Your task to perform on an android device: Go to CNN.com Image 0: 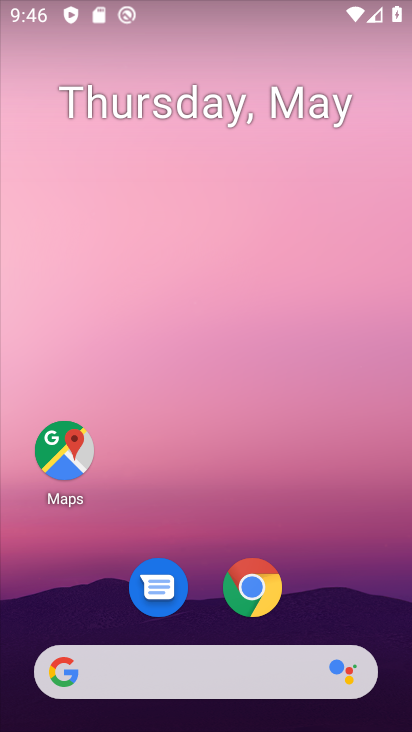
Step 0: click (250, 566)
Your task to perform on an android device: Go to CNN.com Image 1: 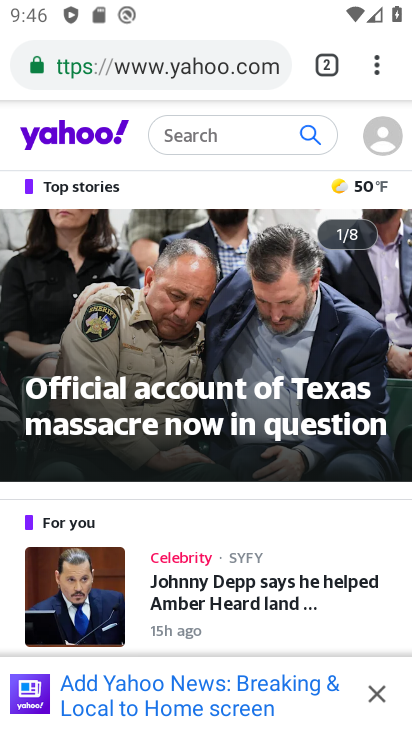
Step 1: click (154, 51)
Your task to perform on an android device: Go to CNN.com Image 2: 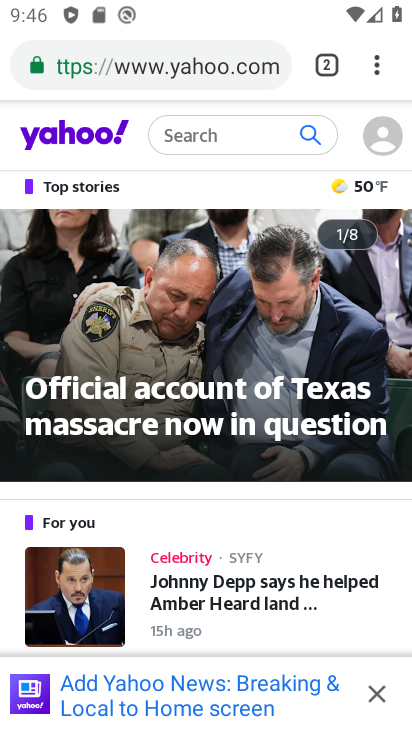
Step 2: click (154, 51)
Your task to perform on an android device: Go to CNN.com Image 3: 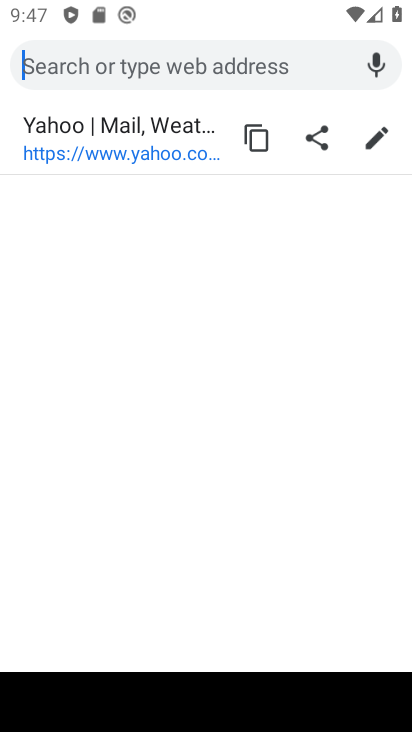
Step 3: type "cnn.com"
Your task to perform on an android device: Go to CNN.com Image 4: 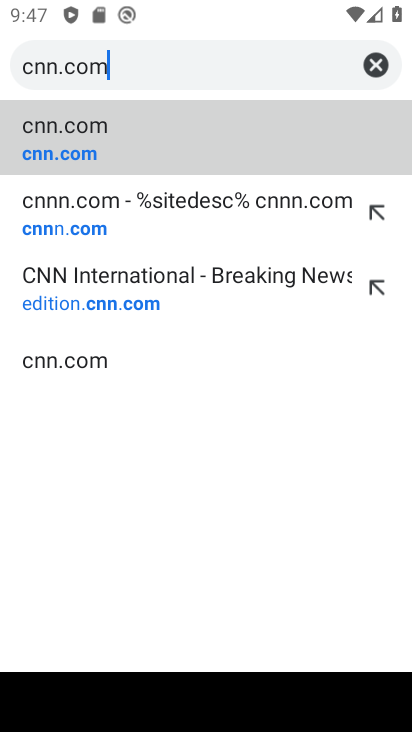
Step 4: click (101, 366)
Your task to perform on an android device: Go to CNN.com Image 5: 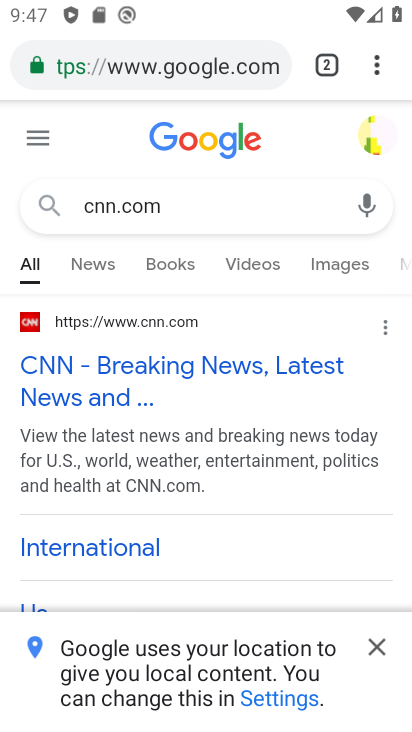
Step 5: task complete